Your task to perform on an android device: toggle data saver in the chrome app Image 0: 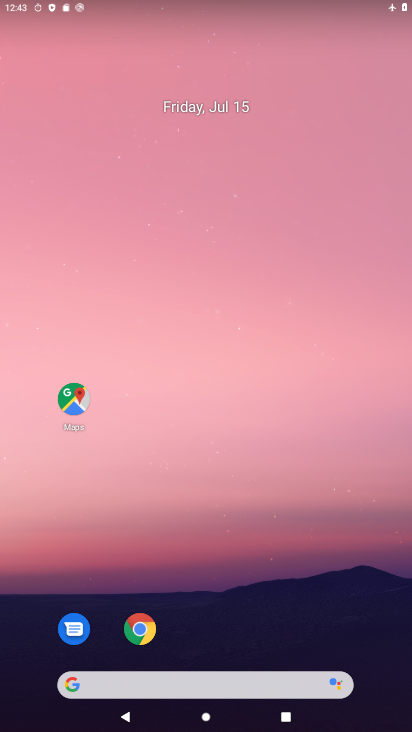
Step 0: drag from (220, 648) to (205, 134)
Your task to perform on an android device: toggle data saver in the chrome app Image 1: 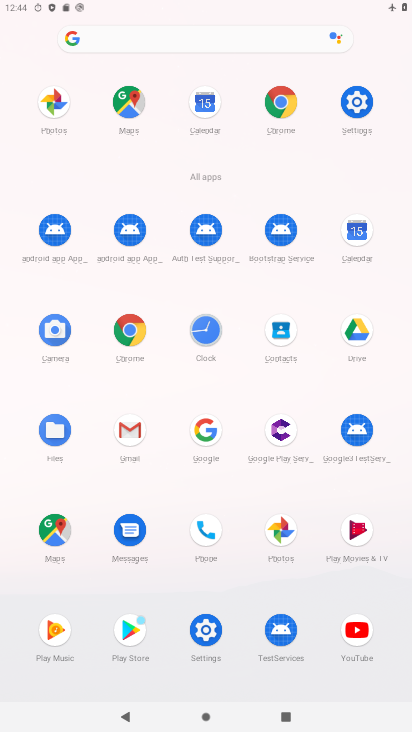
Step 1: click (125, 331)
Your task to perform on an android device: toggle data saver in the chrome app Image 2: 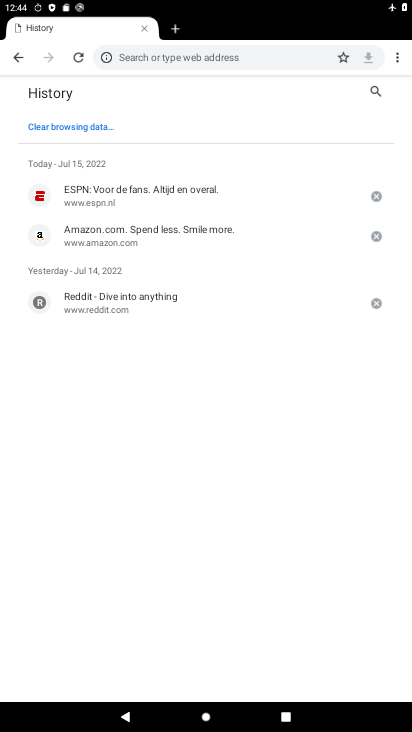
Step 2: click (394, 55)
Your task to perform on an android device: toggle data saver in the chrome app Image 3: 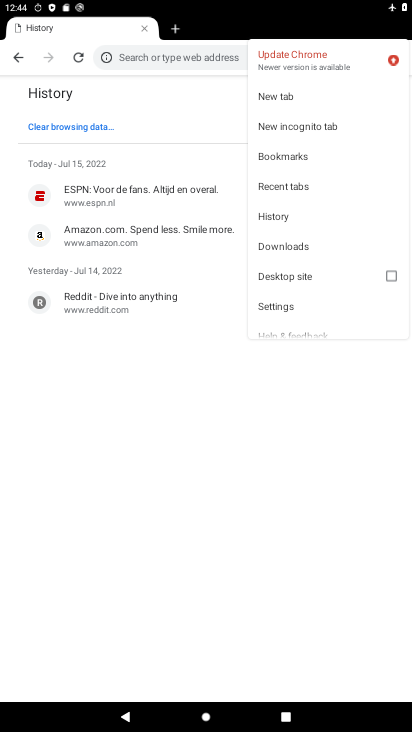
Step 3: click (282, 309)
Your task to perform on an android device: toggle data saver in the chrome app Image 4: 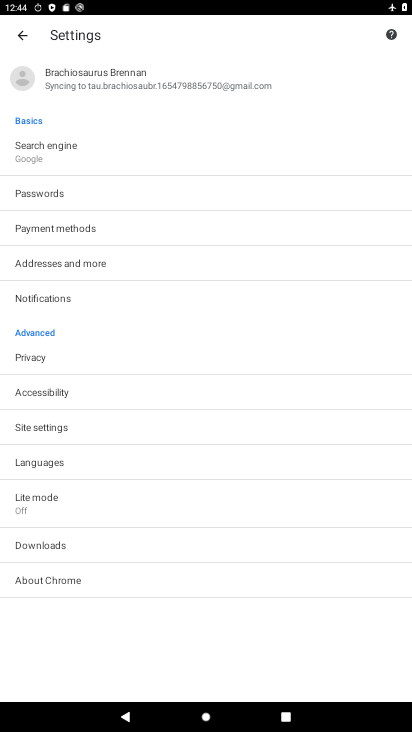
Step 4: click (69, 430)
Your task to perform on an android device: toggle data saver in the chrome app Image 5: 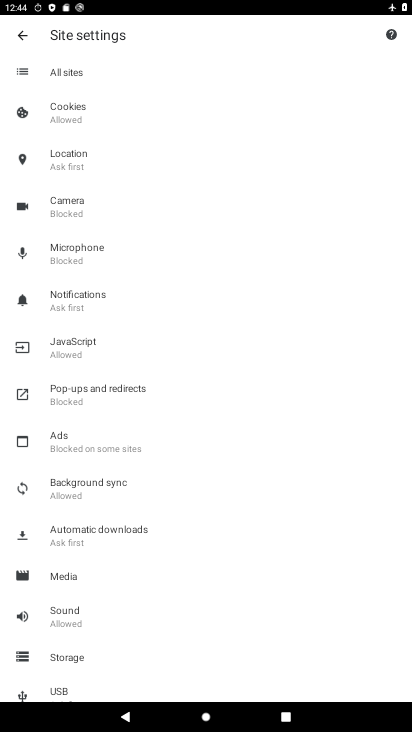
Step 5: click (29, 37)
Your task to perform on an android device: toggle data saver in the chrome app Image 6: 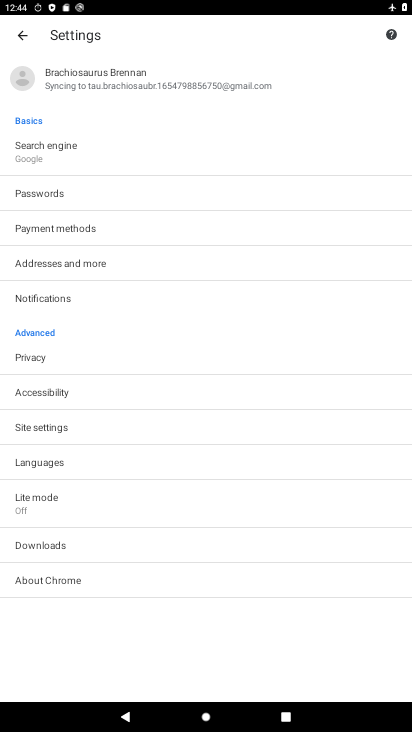
Step 6: click (48, 509)
Your task to perform on an android device: toggle data saver in the chrome app Image 7: 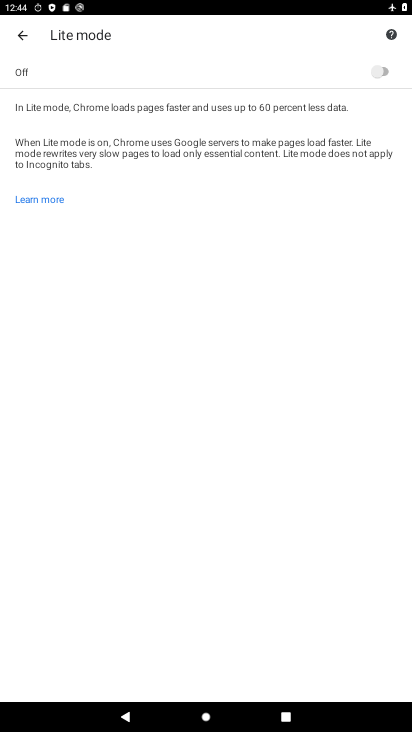
Step 7: click (339, 75)
Your task to perform on an android device: toggle data saver in the chrome app Image 8: 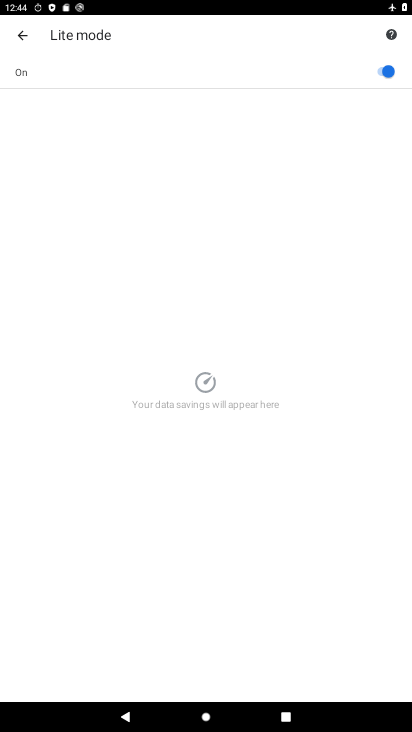
Step 8: task complete